Your task to perform on an android device: open sync settings in chrome Image 0: 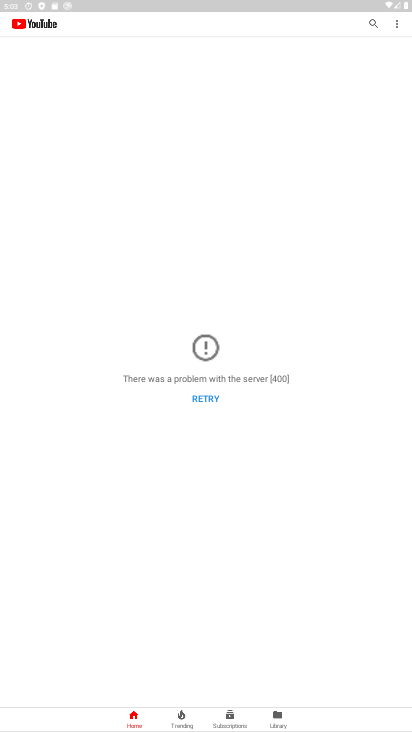
Step 0: drag from (283, 722) to (260, 397)
Your task to perform on an android device: open sync settings in chrome Image 1: 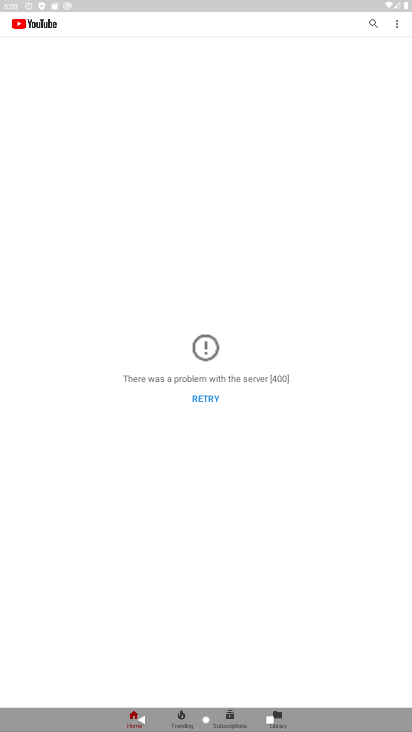
Step 1: press home button
Your task to perform on an android device: open sync settings in chrome Image 2: 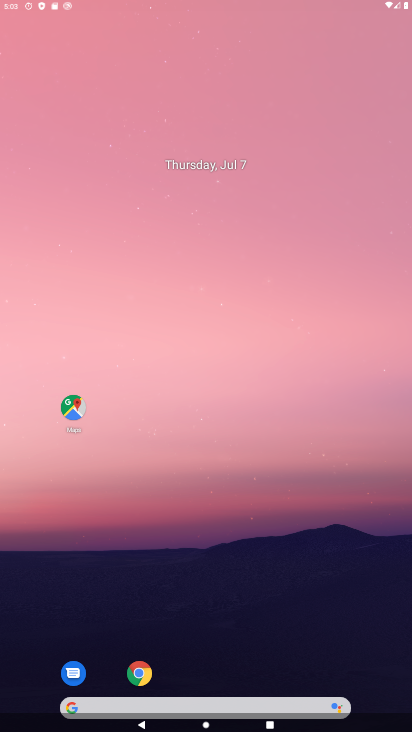
Step 2: drag from (262, 689) to (202, 140)
Your task to perform on an android device: open sync settings in chrome Image 3: 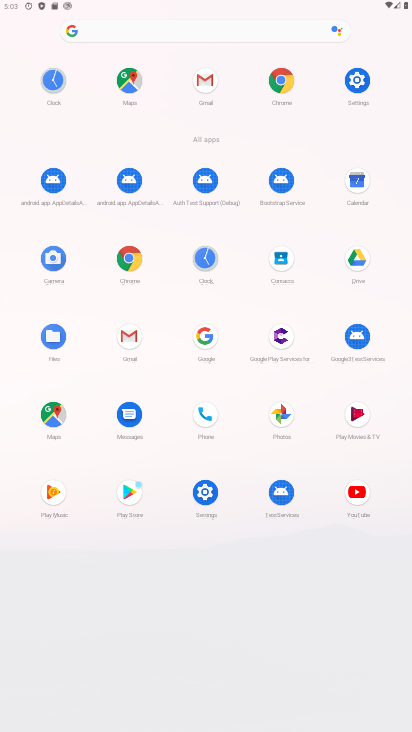
Step 3: click (124, 256)
Your task to perform on an android device: open sync settings in chrome Image 4: 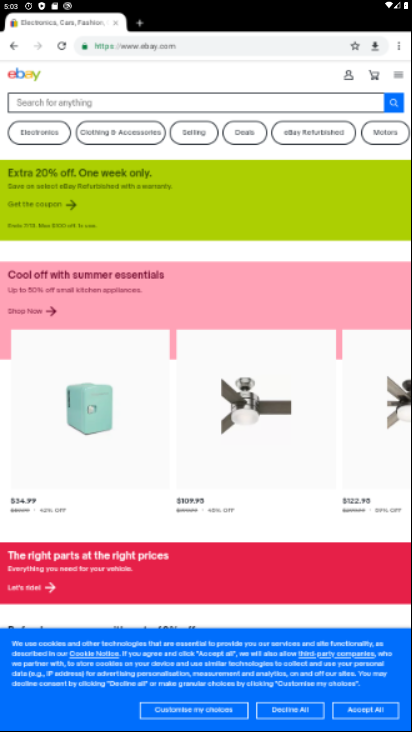
Step 4: drag from (401, 42) to (311, 310)
Your task to perform on an android device: open sync settings in chrome Image 5: 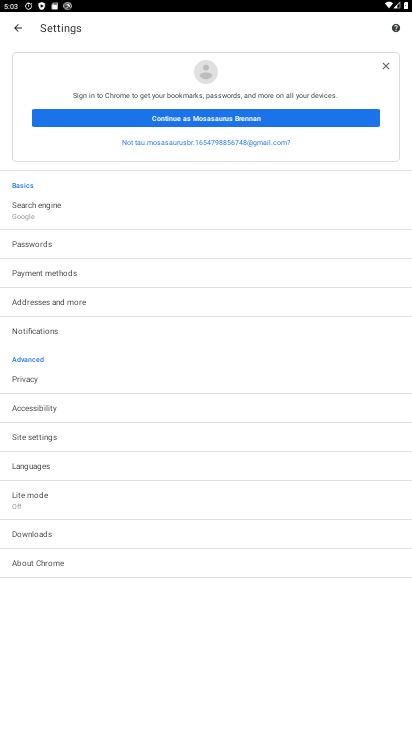
Step 5: click (60, 443)
Your task to perform on an android device: open sync settings in chrome Image 6: 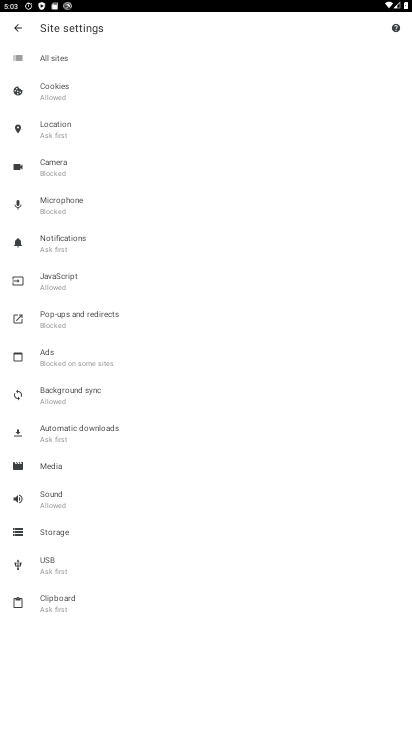
Step 6: click (66, 403)
Your task to perform on an android device: open sync settings in chrome Image 7: 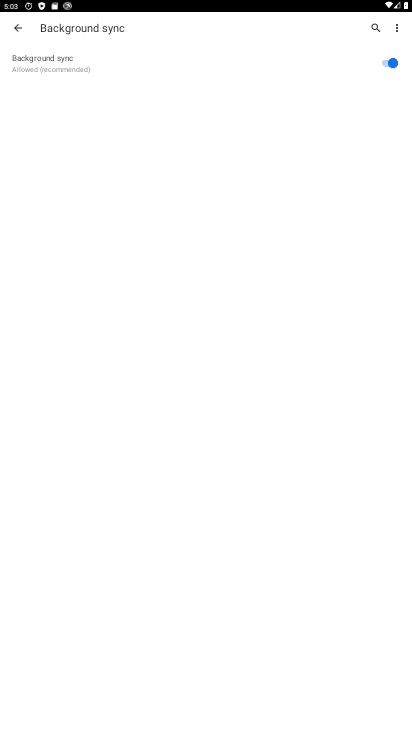
Step 7: task complete